Your task to perform on an android device: Search for Mexican restaurants on Maps Image 0: 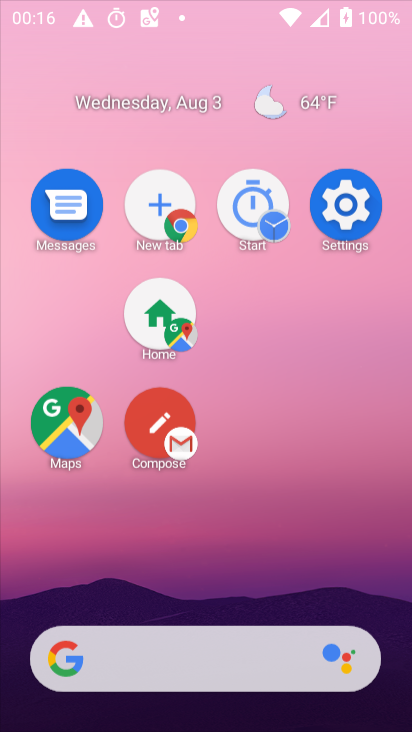
Step 0: press back button
Your task to perform on an android device: Search for Mexican restaurants on Maps Image 1: 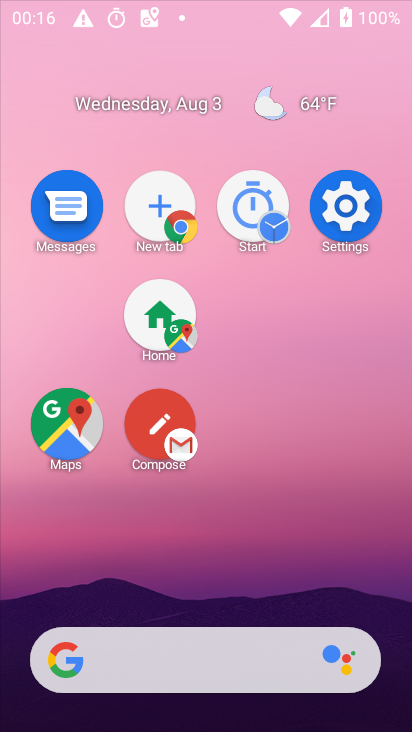
Step 1: drag from (229, 462) to (180, 216)
Your task to perform on an android device: Search for Mexican restaurants on Maps Image 2: 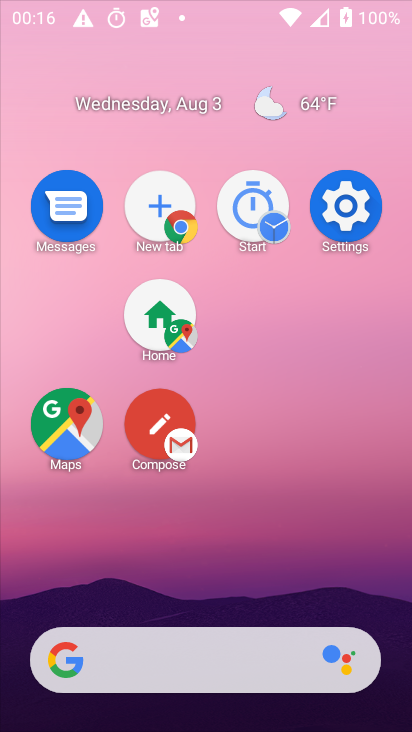
Step 2: drag from (228, 524) to (205, 155)
Your task to perform on an android device: Search for Mexican restaurants on Maps Image 3: 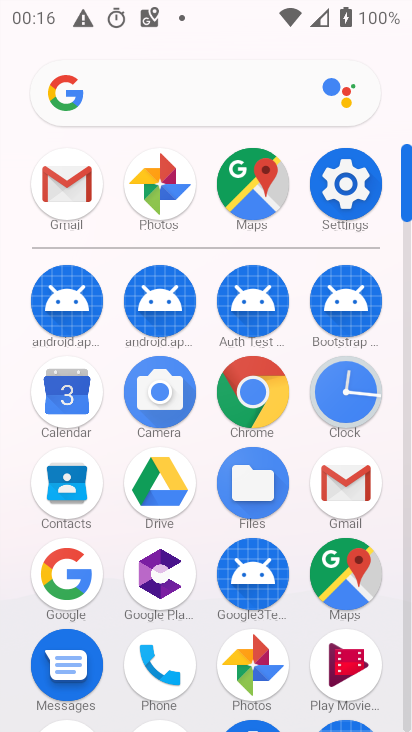
Step 3: click (351, 574)
Your task to perform on an android device: Search for Mexican restaurants on Maps Image 4: 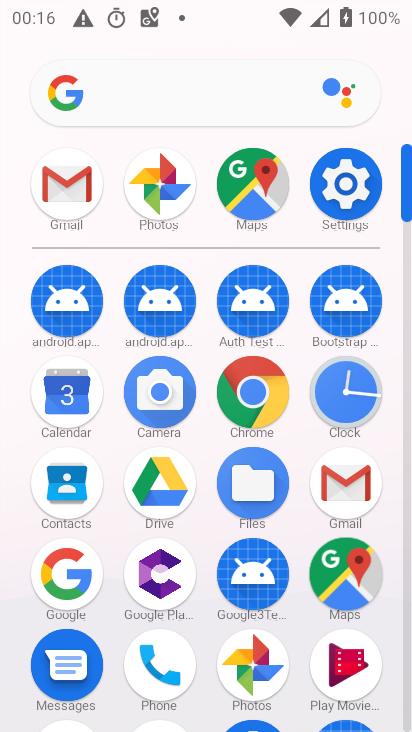
Step 4: click (351, 574)
Your task to perform on an android device: Search for Mexican restaurants on Maps Image 5: 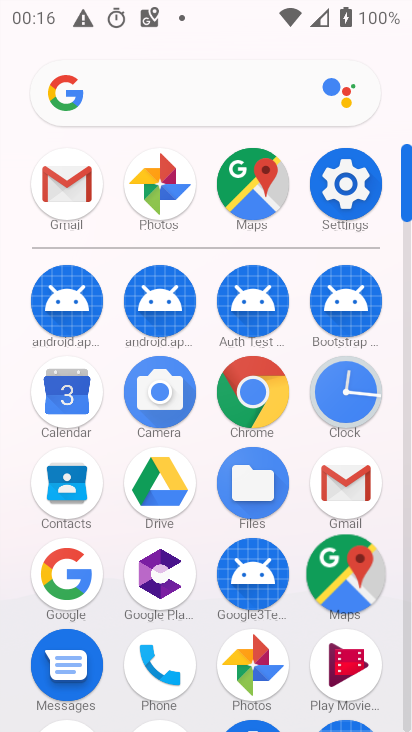
Step 5: click (352, 575)
Your task to perform on an android device: Search for Mexican restaurants on Maps Image 6: 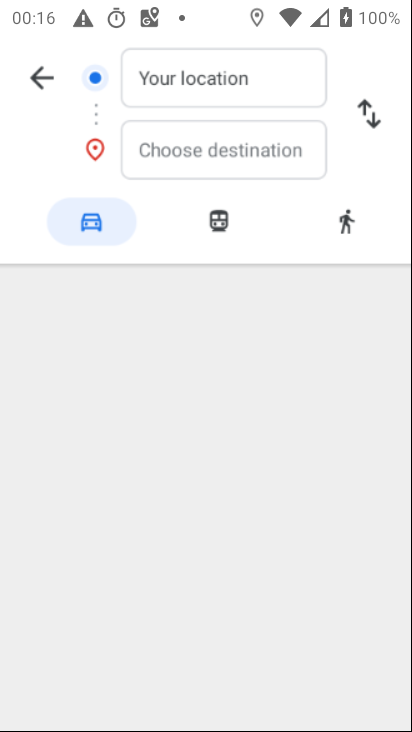
Step 6: click (357, 577)
Your task to perform on an android device: Search for Mexican restaurants on Maps Image 7: 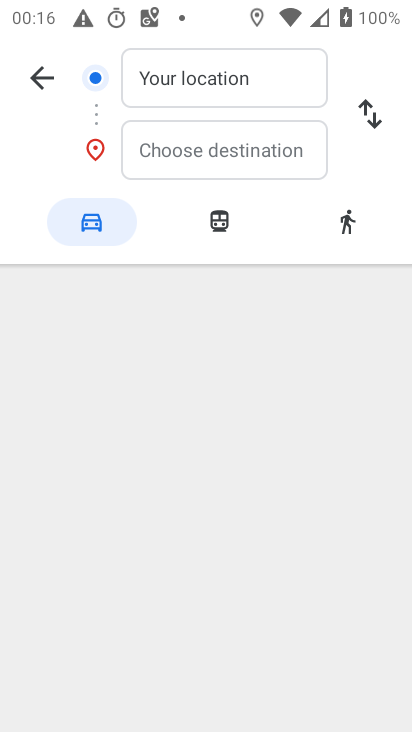
Step 7: click (42, 58)
Your task to perform on an android device: Search for Mexican restaurants on Maps Image 8: 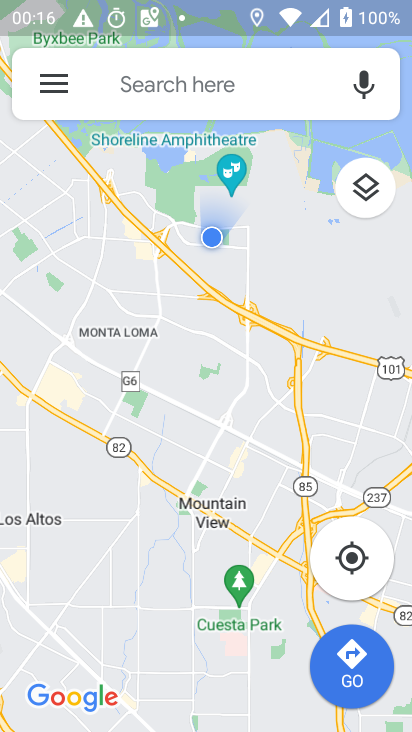
Step 8: click (123, 90)
Your task to perform on an android device: Search for Mexican restaurants on Maps Image 9: 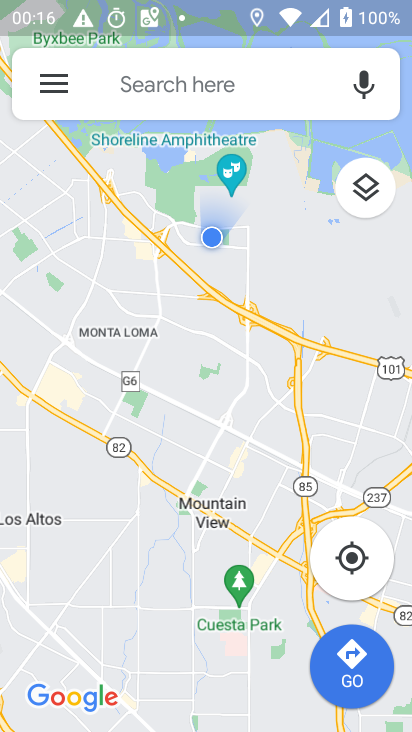
Step 9: click (124, 90)
Your task to perform on an android device: Search for Mexican restaurants on Maps Image 10: 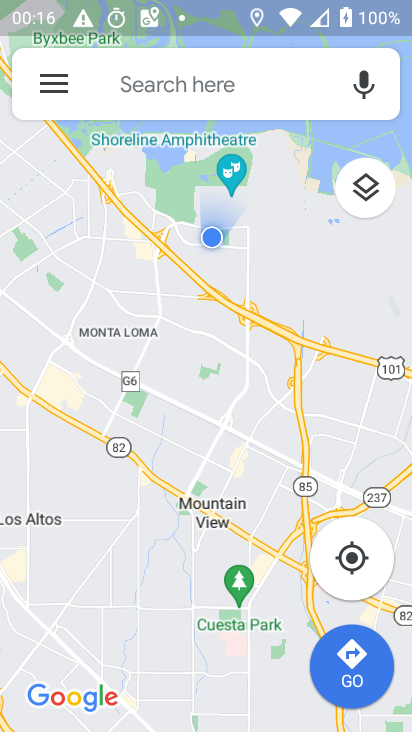
Step 10: click (125, 90)
Your task to perform on an android device: Search for Mexican restaurants on Maps Image 11: 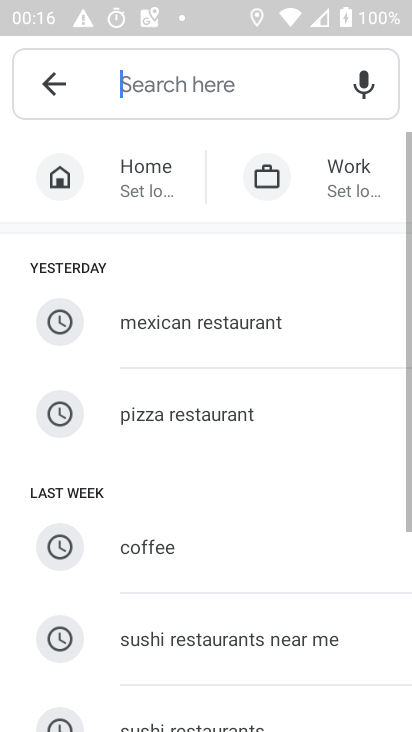
Step 11: click (126, 90)
Your task to perform on an android device: Search for Mexican restaurants on Maps Image 12: 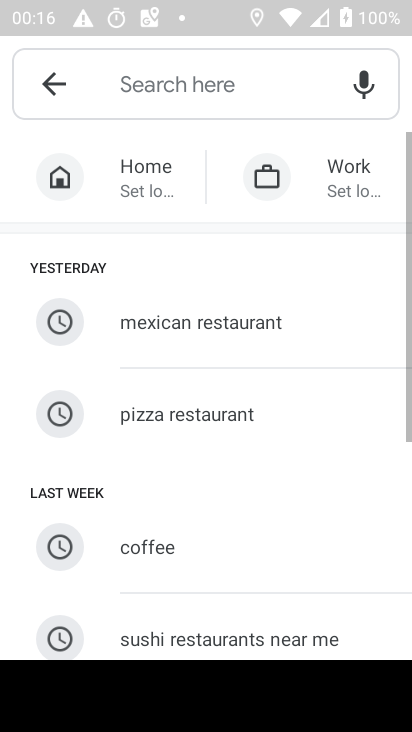
Step 12: click (232, 331)
Your task to perform on an android device: Search for Mexican restaurants on Maps Image 13: 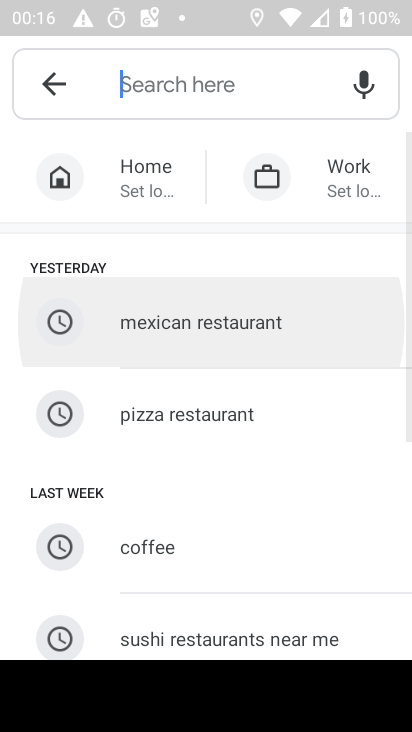
Step 13: click (232, 331)
Your task to perform on an android device: Search for Mexican restaurants on Maps Image 14: 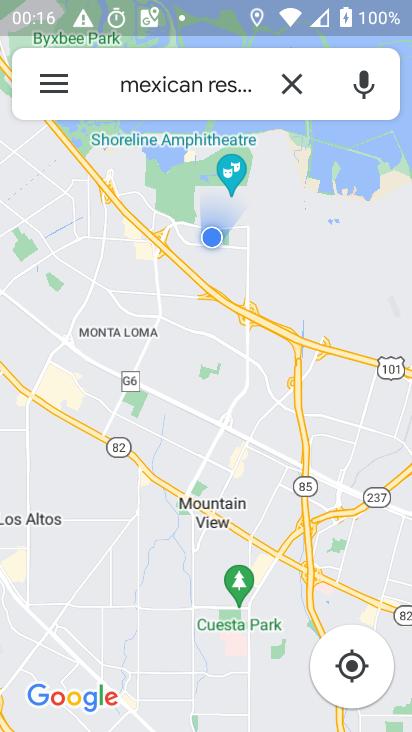
Step 14: task complete